Your task to perform on an android device: View the shopping cart on newegg.com. Add "macbook air" to the cart on newegg.com Image 0: 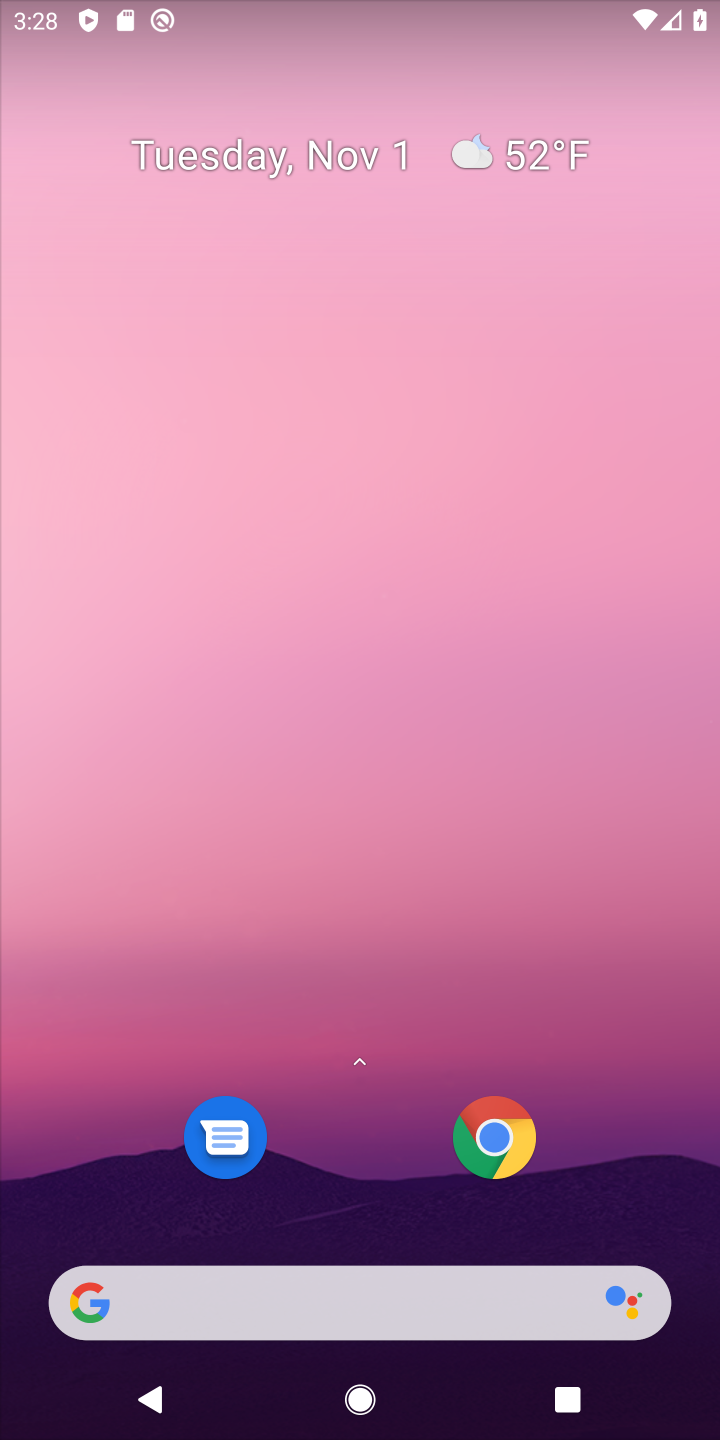
Step 0: click (367, 1331)
Your task to perform on an android device: View the shopping cart on newegg.com. Add "macbook air" to the cart on newegg.com Image 1: 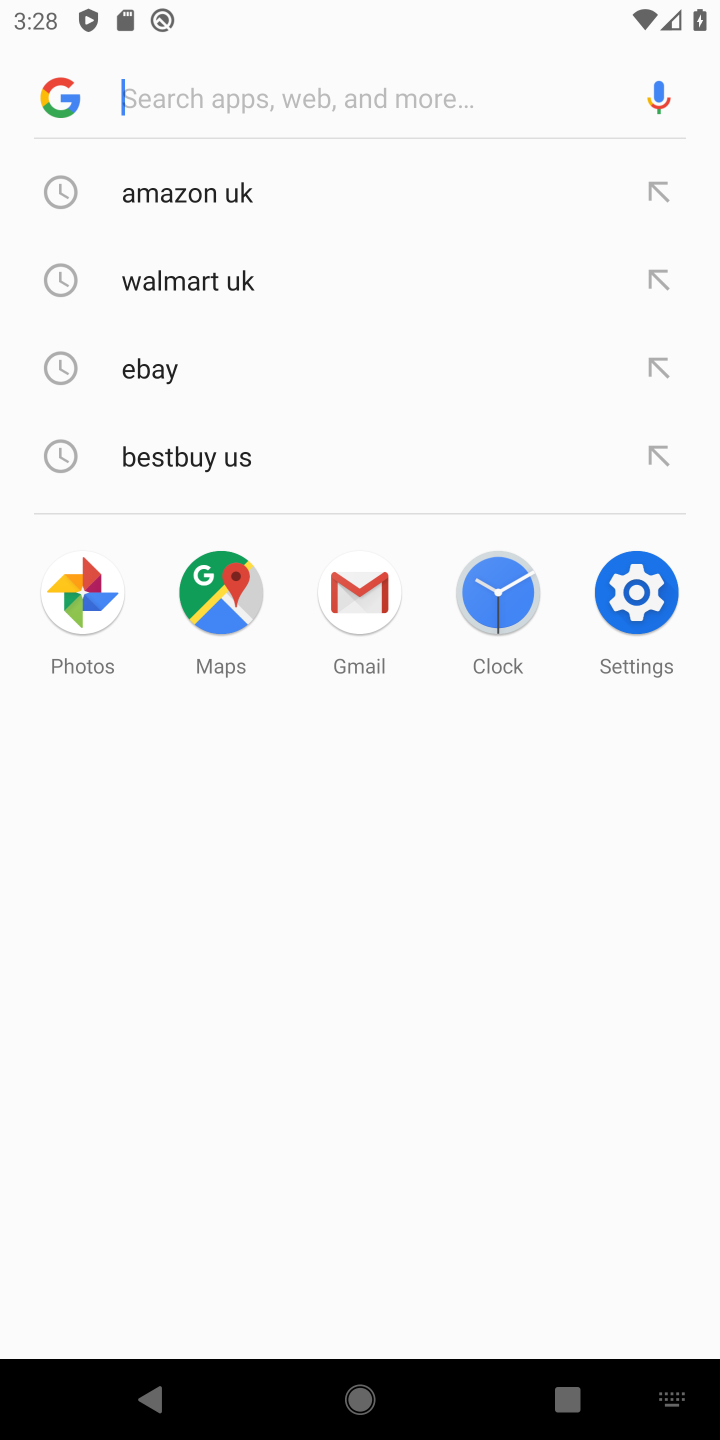
Step 1: type "macbook air"
Your task to perform on an android device: View the shopping cart on newegg.com. Add "macbook air" to the cart on newegg.com Image 2: 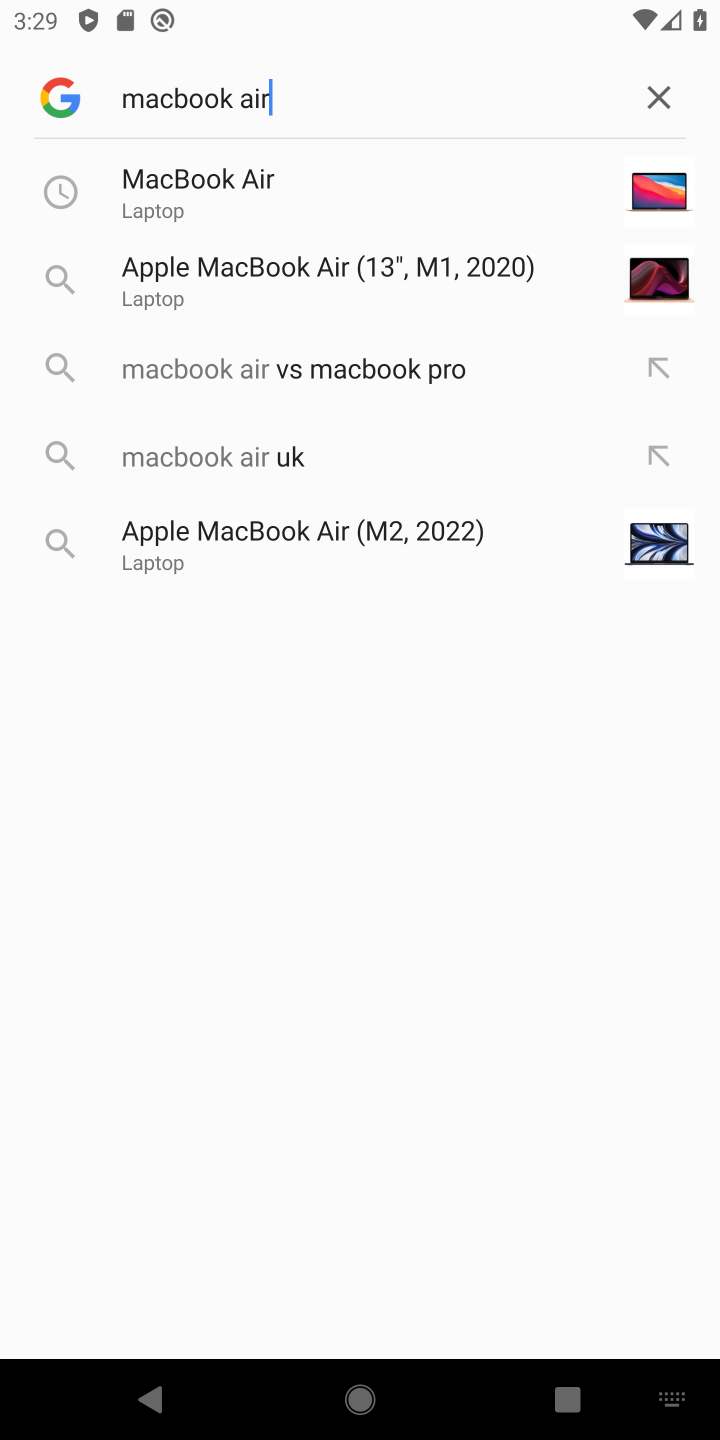
Step 2: click (188, 206)
Your task to perform on an android device: View the shopping cart on newegg.com. Add "macbook air" to the cart on newegg.com Image 3: 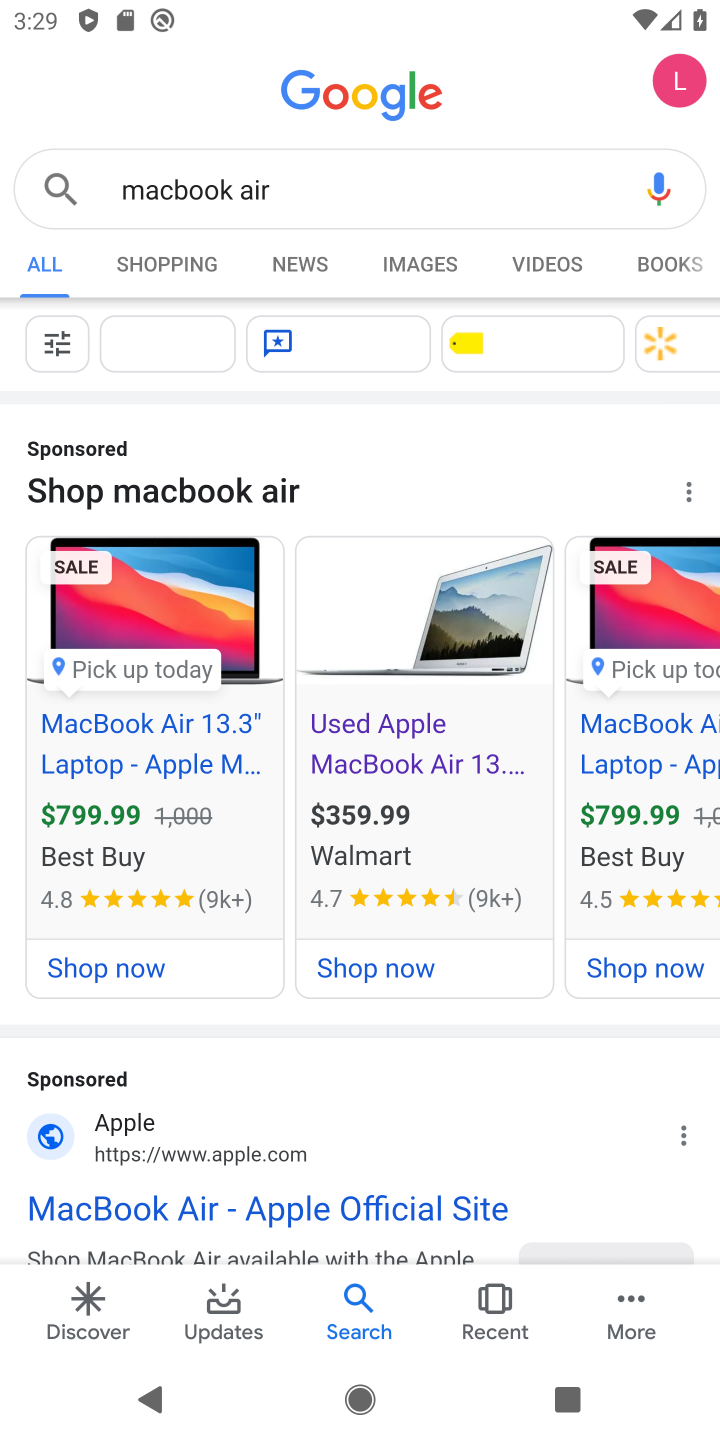
Step 3: click (46, 769)
Your task to perform on an android device: View the shopping cart on newegg.com. Add "macbook air" to the cart on newegg.com Image 4: 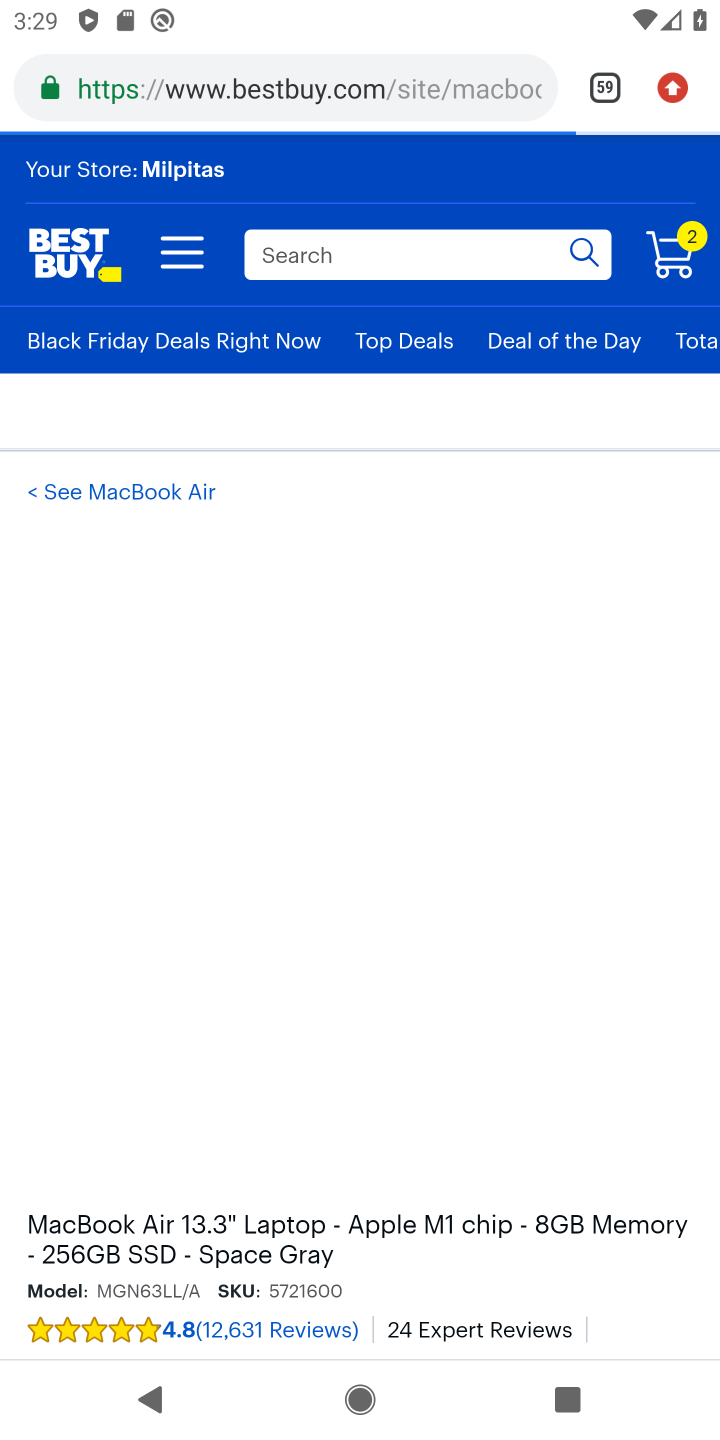
Step 4: click (270, 277)
Your task to perform on an android device: View the shopping cart on newegg.com. Add "macbook air" to the cart on newegg.com Image 5: 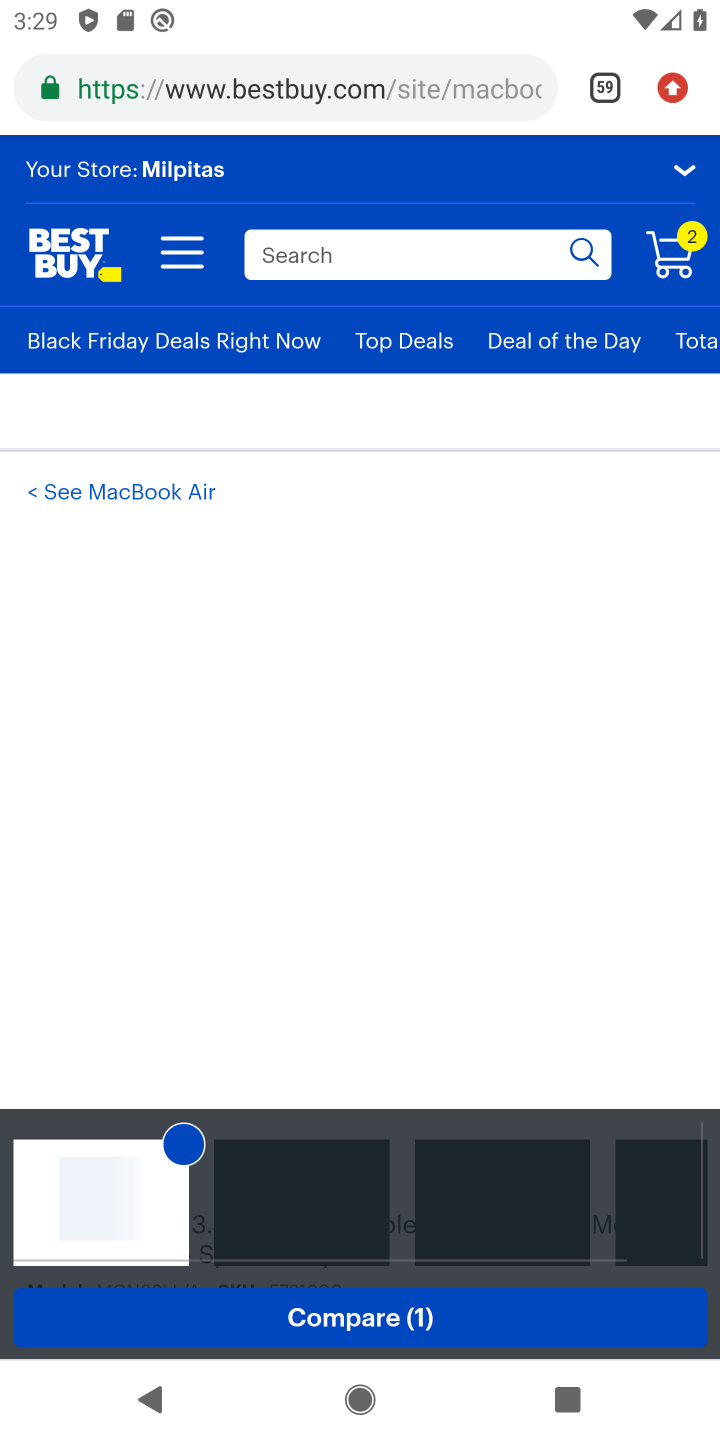
Step 5: task complete